Your task to perform on an android device: set an alarm Image 0: 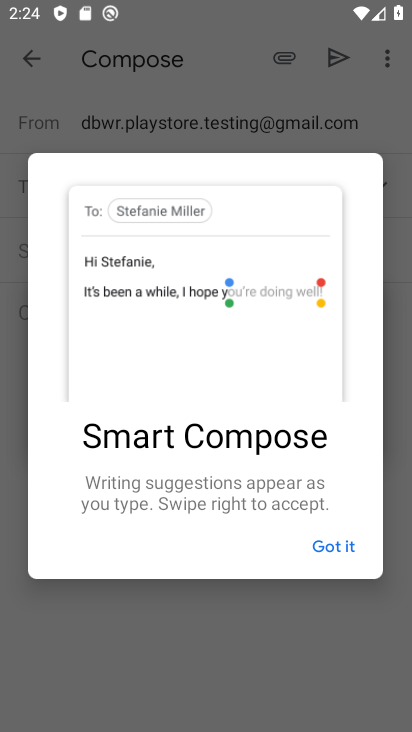
Step 0: press home button
Your task to perform on an android device: set an alarm Image 1: 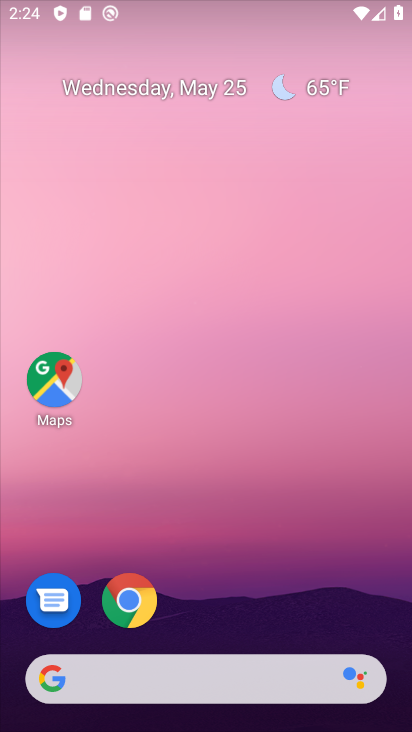
Step 1: drag from (347, 495) to (337, 200)
Your task to perform on an android device: set an alarm Image 2: 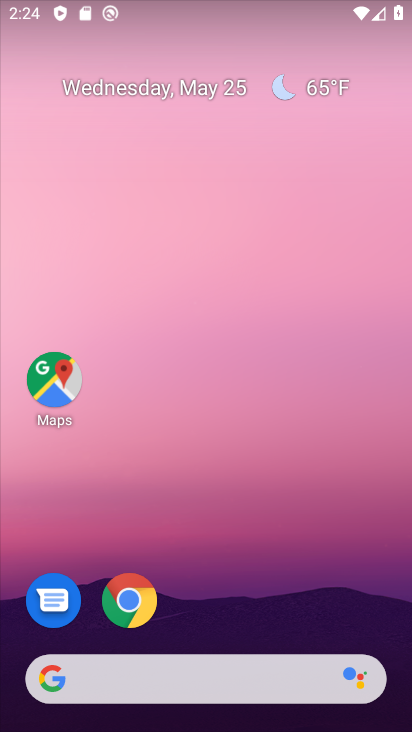
Step 2: drag from (285, 489) to (222, 134)
Your task to perform on an android device: set an alarm Image 3: 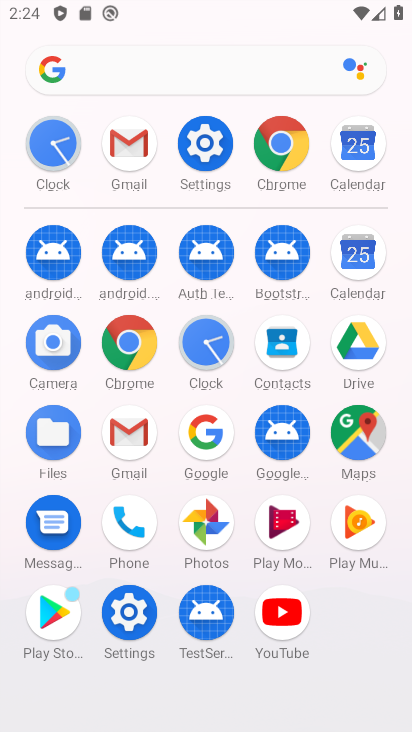
Step 3: click (64, 158)
Your task to perform on an android device: set an alarm Image 4: 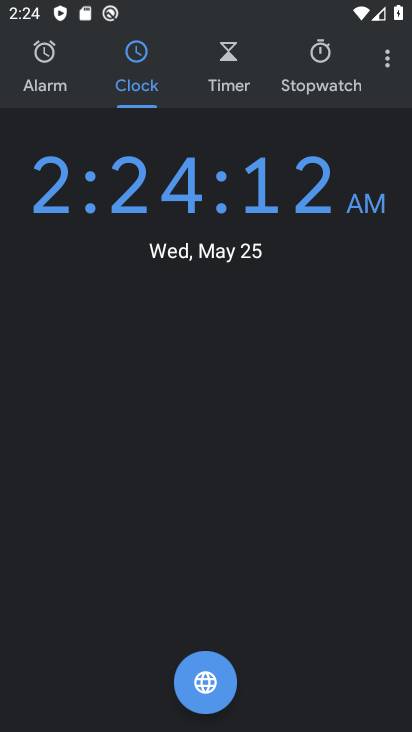
Step 4: click (57, 70)
Your task to perform on an android device: set an alarm Image 5: 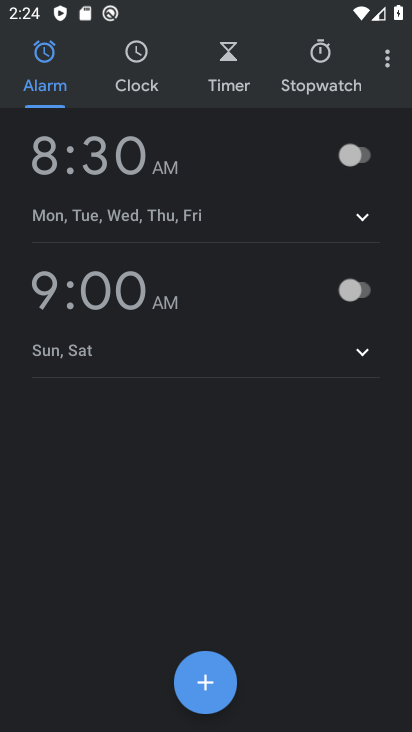
Step 5: click (197, 690)
Your task to perform on an android device: set an alarm Image 6: 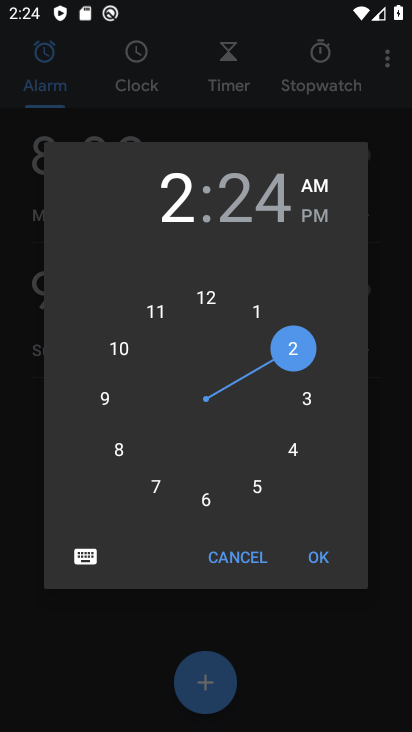
Step 6: click (321, 557)
Your task to perform on an android device: set an alarm Image 7: 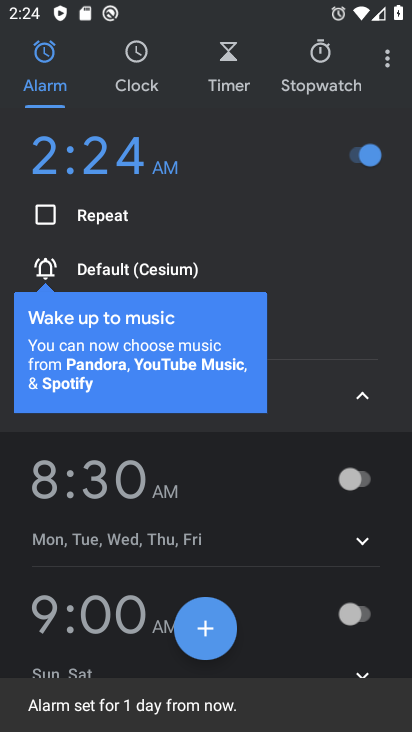
Step 7: task complete